Your task to perform on an android device: turn off improve location accuracy Image 0: 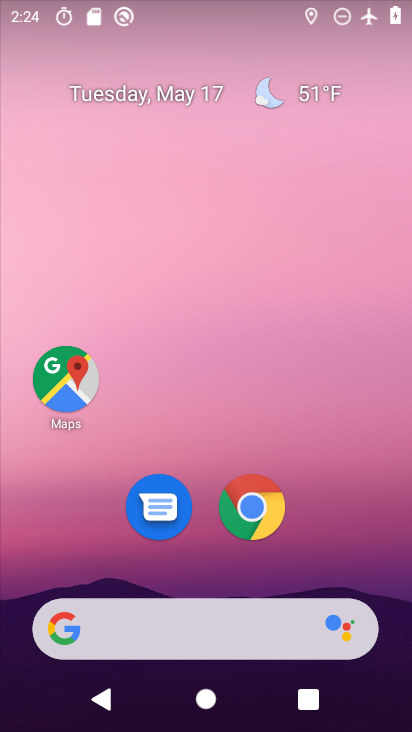
Step 0: drag from (198, 570) to (241, 104)
Your task to perform on an android device: turn off improve location accuracy Image 1: 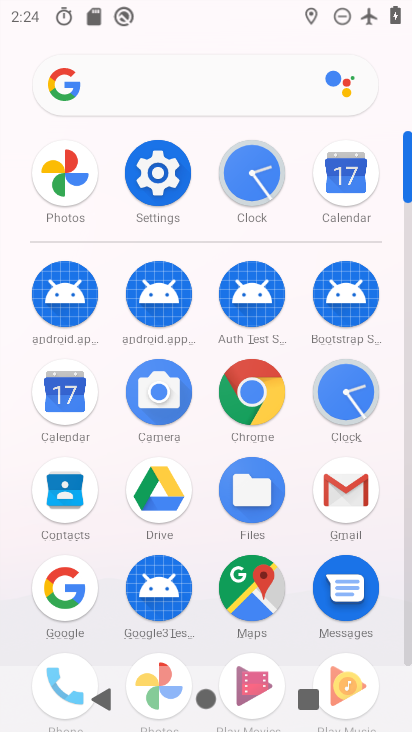
Step 1: click (144, 173)
Your task to perform on an android device: turn off improve location accuracy Image 2: 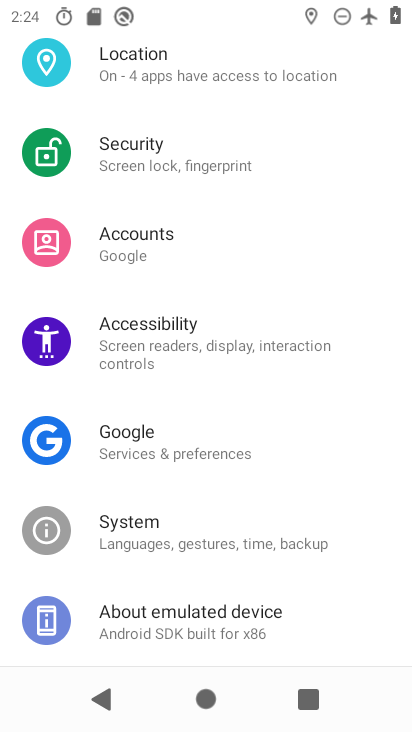
Step 2: click (259, 566)
Your task to perform on an android device: turn off improve location accuracy Image 3: 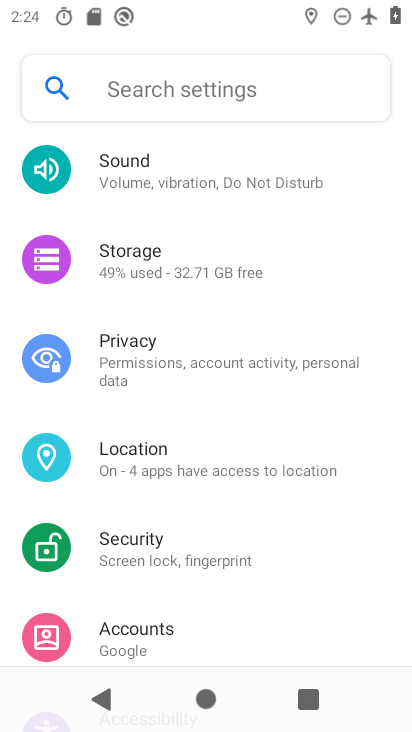
Step 3: drag from (208, 300) to (235, 532)
Your task to perform on an android device: turn off improve location accuracy Image 4: 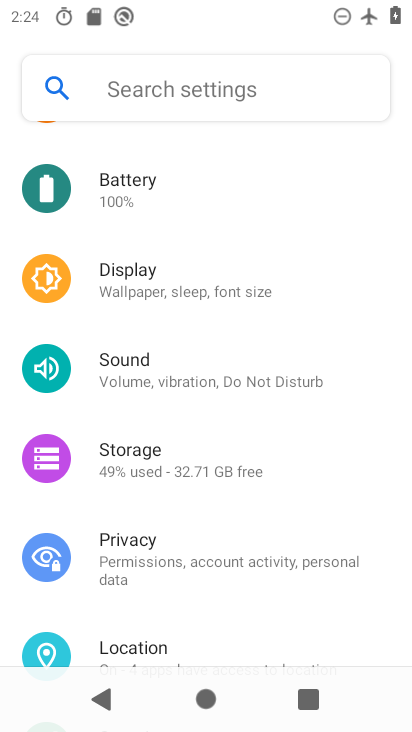
Step 4: drag from (201, 211) to (227, 127)
Your task to perform on an android device: turn off improve location accuracy Image 5: 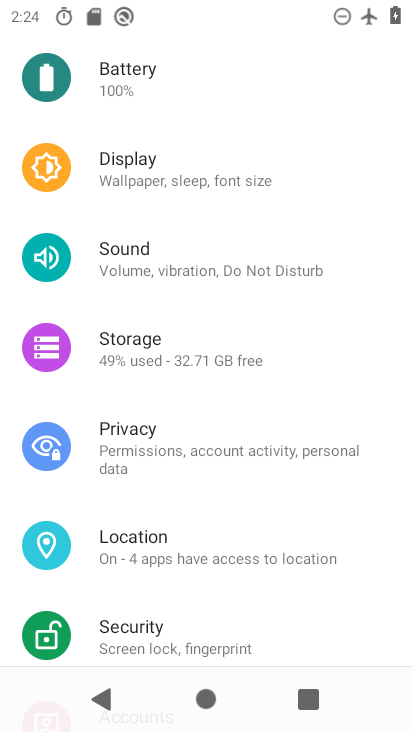
Step 5: click (207, 544)
Your task to perform on an android device: turn off improve location accuracy Image 6: 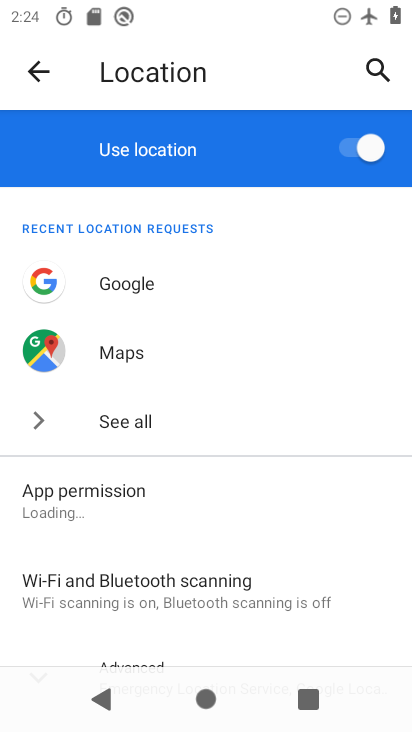
Step 6: drag from (150, 598) to (176, 257)
Your task to perform on an android device: turn off improve location accuracy Image 7: 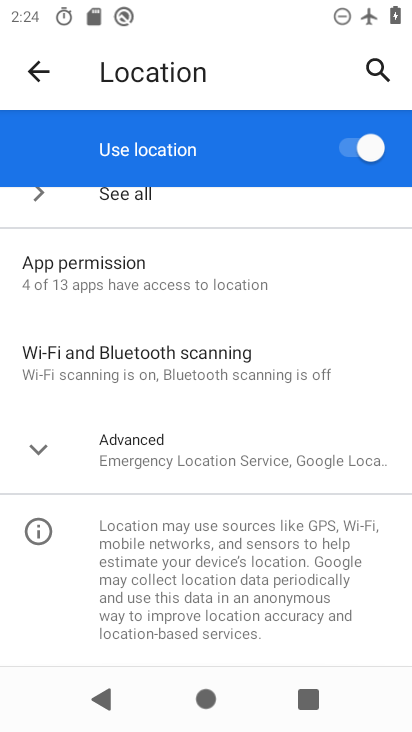
Step 7: click (127, 440)
Your task to perform on an android device: turn off improve location accuracy Image 8: 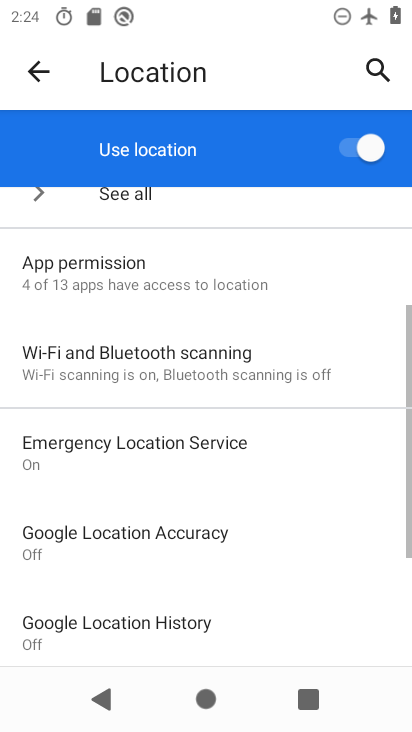
Step 8: drag from (218, 513) to (214, 431)
Your task to perform on an android device: turn off improve location accuracy Image 9: 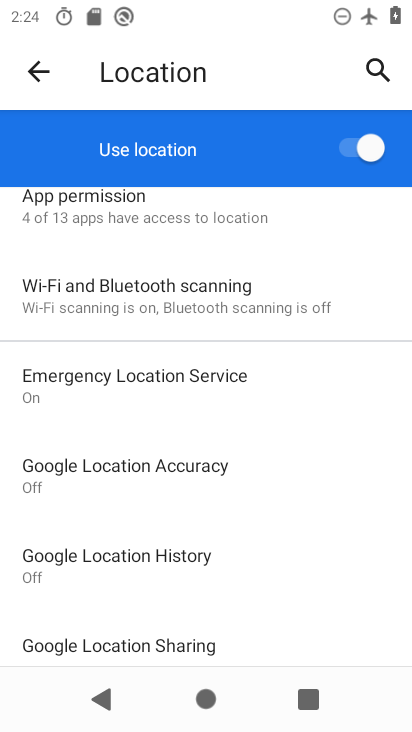
Step 9: click (188, 466)
Your task to perform on an android device: turn off improve location accuracy Image 10: 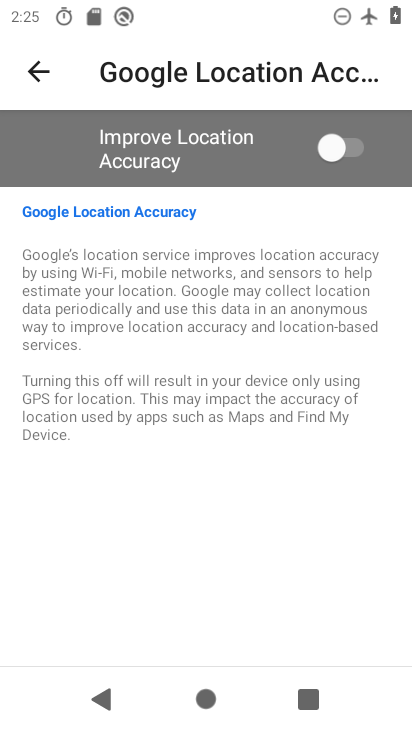
Step 10: task complete